Your task to perform on an android device: turn pop-ups on in chrome Image 0: 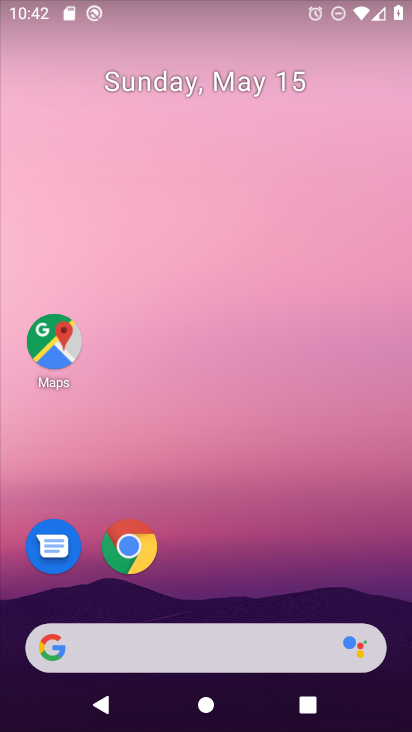
Step 0: click (131, 544)
Your task to perform on an android device: turn pop-ups on in chrome Image 1: 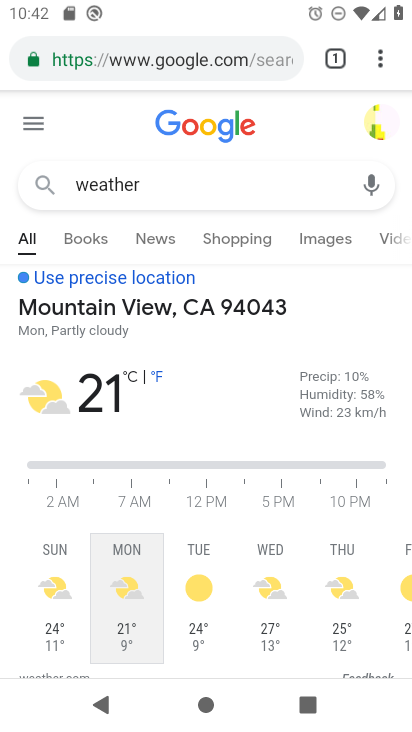
Step 1: click (385, 55)
Your task to perform on an android device: turn pop-ups on in chrome Image 2: 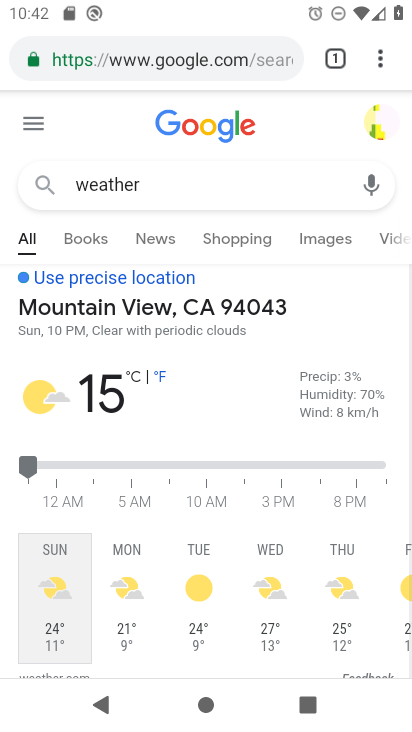
Step 2: drag from (382, 60) to (229, 562)
Your task to perform on an android device: turn pop-ups on in chrome Image 3: 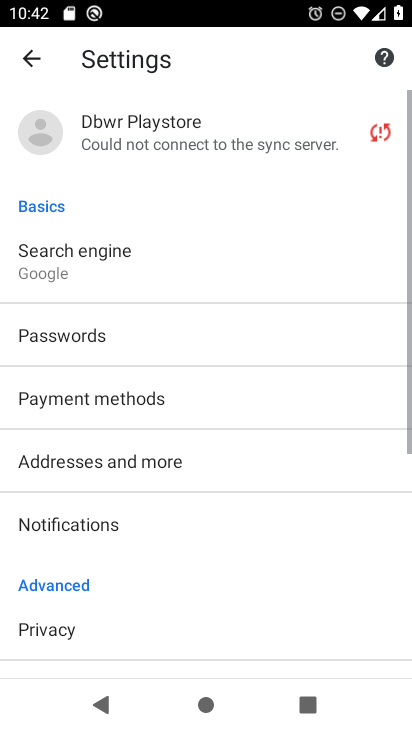
Step 3: drag from (229, 562) to (310, 173)
Your task to perform on an android device: turn pop-ups on in chrome Image 4: 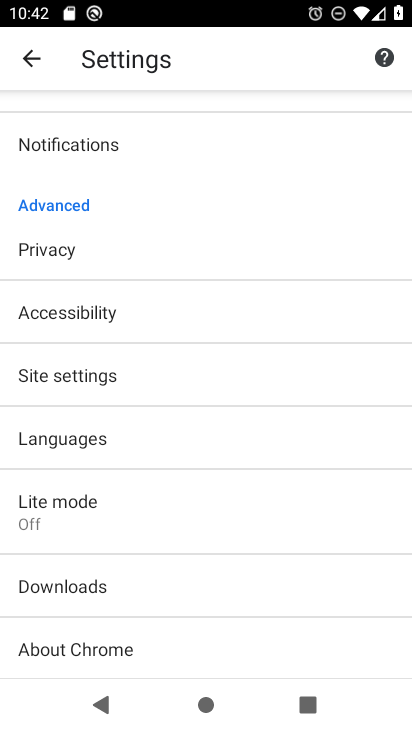
Step 4: click (135, 379)
Your task to perform on an android device: turn pop-ups on in chrome Image 5: 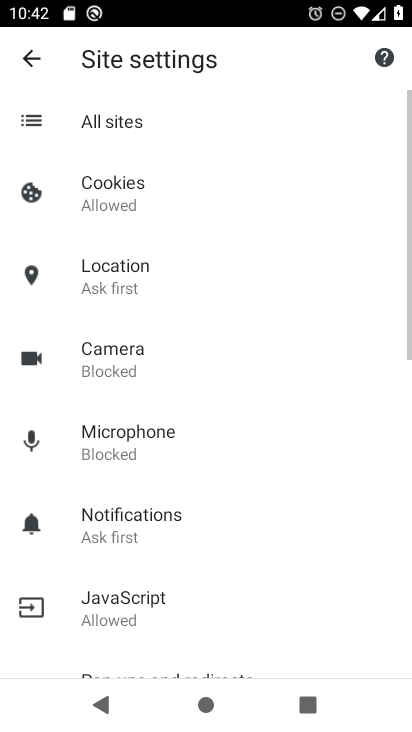
Step 5: drag from (271, 611) to (398, 317)
Your task to perform on an android device: turn pop-ups on in chrome Image 6: 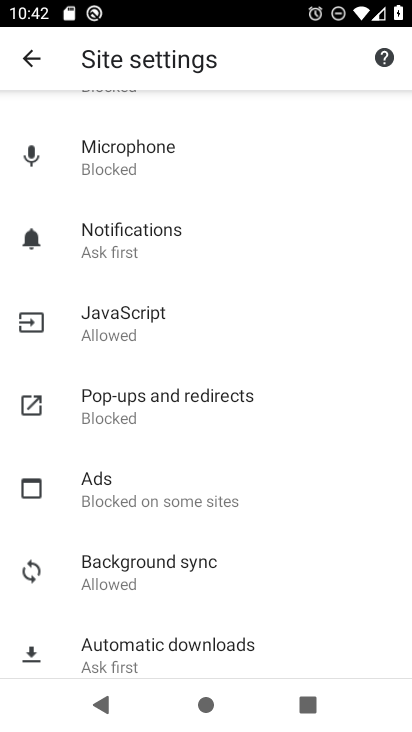
Step 6: click (189, 408)
Your task to perform on an android device: turn pop-ups on in chrome Image 7: 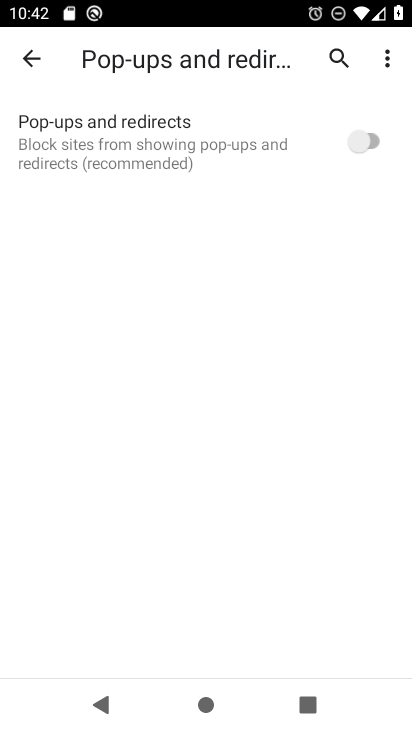
Step 7: click (377, 150)
Your task to perform on an android device: turn pop-ups on in chrome Image 8: 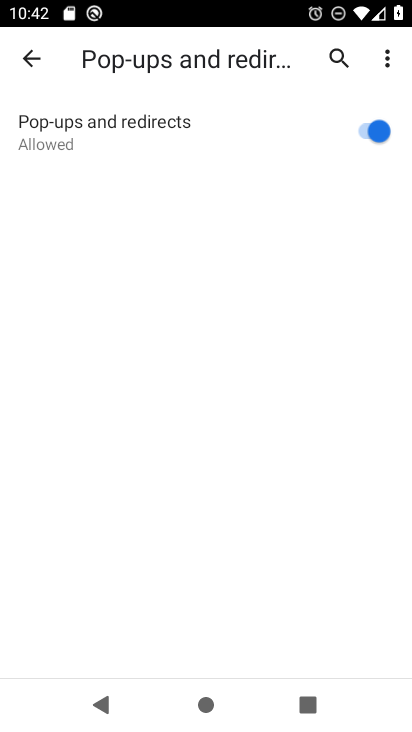
Step 8: task complete